Your task to perform on an android device: turn smart compose on in the gmail app Image 0: 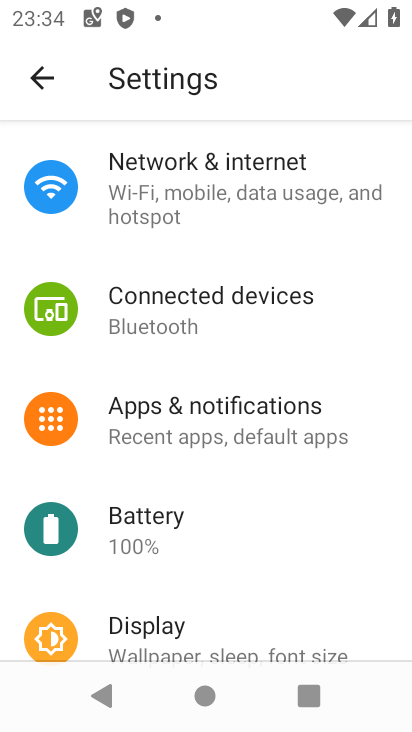
Step 0: press home button
Your task to perform on an android device: turn smart compose on in the gmail app Image 1: 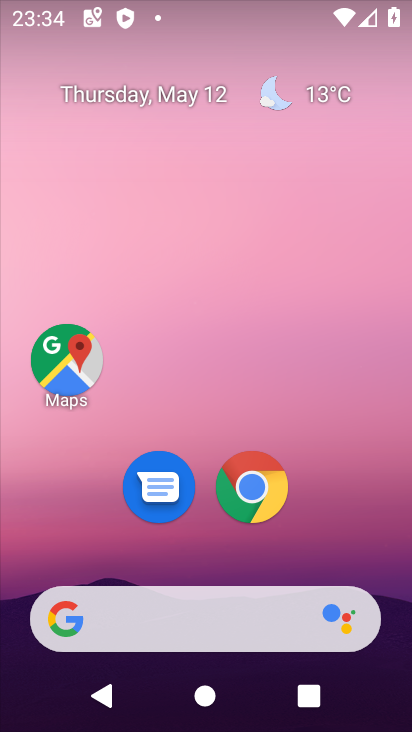
Step 1: drag from (185, 561) to (224, 32)
Your task to perform on an android device: turn smart compose on in the gmail app Image 2: 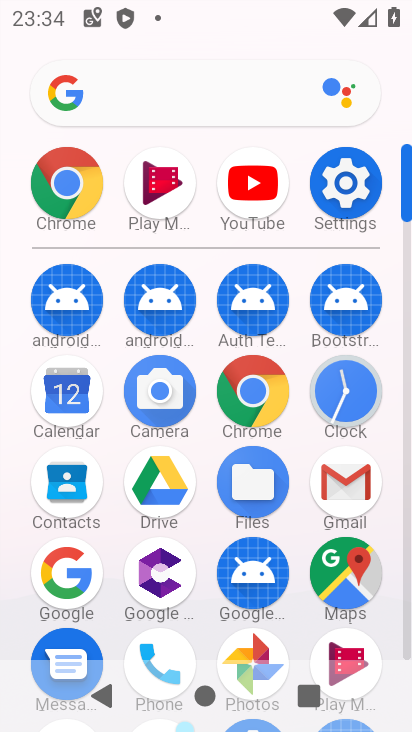
Step 2: click (336, 468)
Your task to perform on an android device: turn smart compose on in the gmail app Image 3: 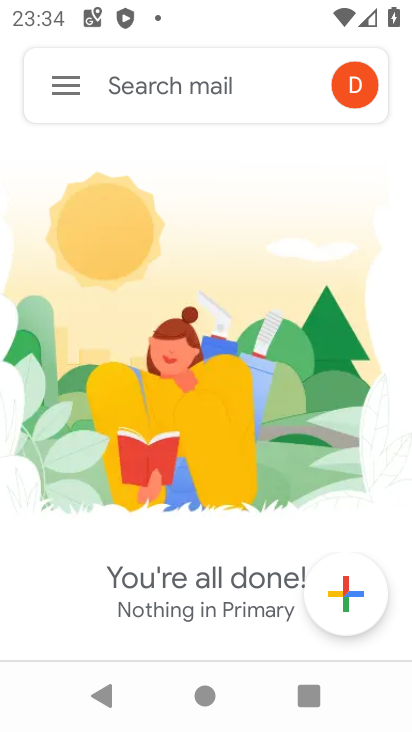
Step 3: click (63, 85)
Your task to perform on an android device: turn smart compose on in the gmail app Image 4: 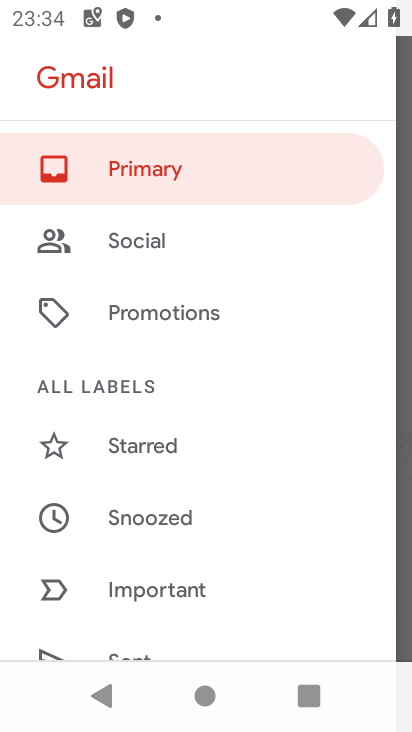
Step 4: drag from (128, 580) to (159, 158)
Your task to perform on an android device: turn smart compose on in the gmail app Image 5: 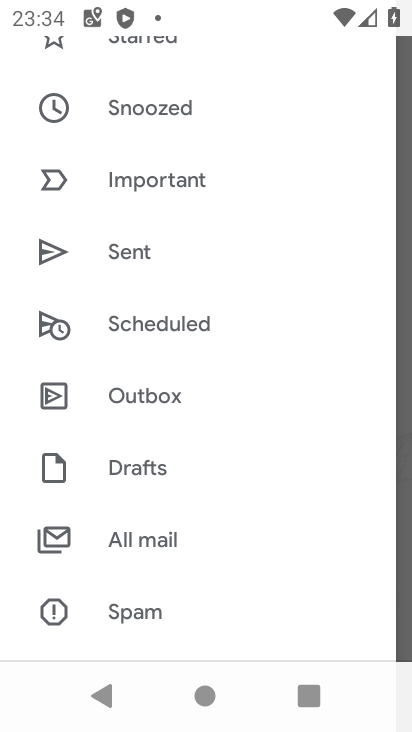
Step 5: drag from (120, 554) to (114, 291)
Your task to perform on an android device: turn smart compose on in the gmail app Image 6: 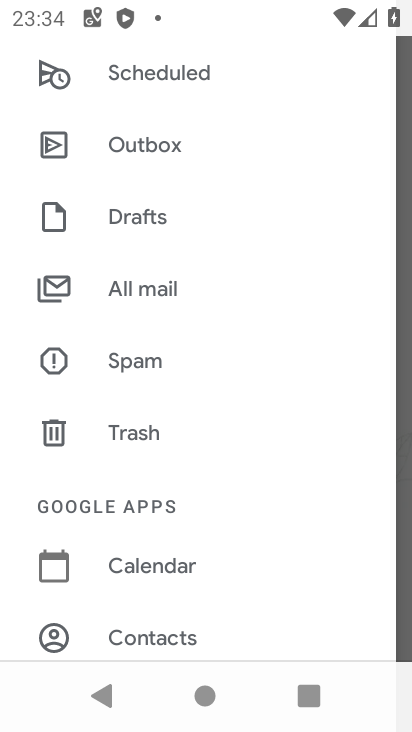
Step 6: drag from (153, 468) to (180, 166)
Your task to perform on an android device: turn smart compose on in the gmail app Image 7: 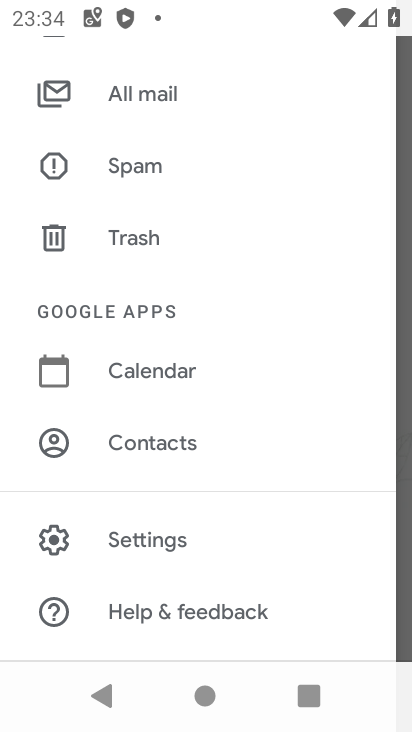
Step 7: click (158, 550)
Your task to perform on an android device: turn smart compose on in the gmail app Image 8: 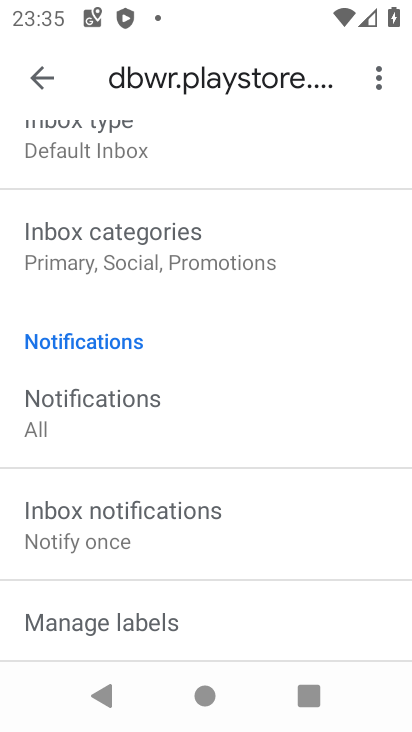
Step 8: task complete